Your task to perform on an android device: delete browsing data in the chrome app Image 0: 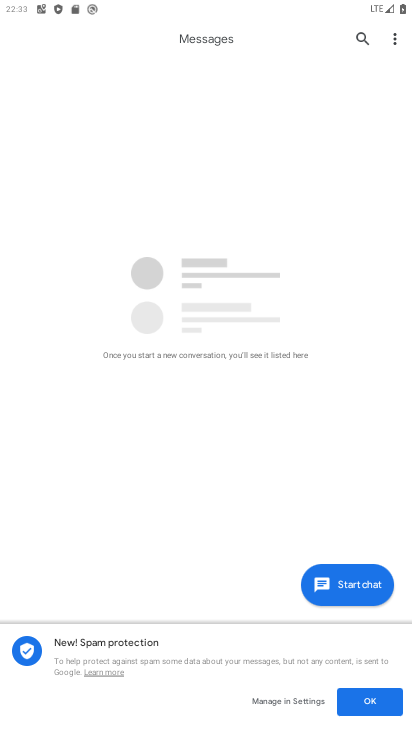
Step 0: press home button
Your task to perform on an android device: delete browsing data in the chrome app Image 1: 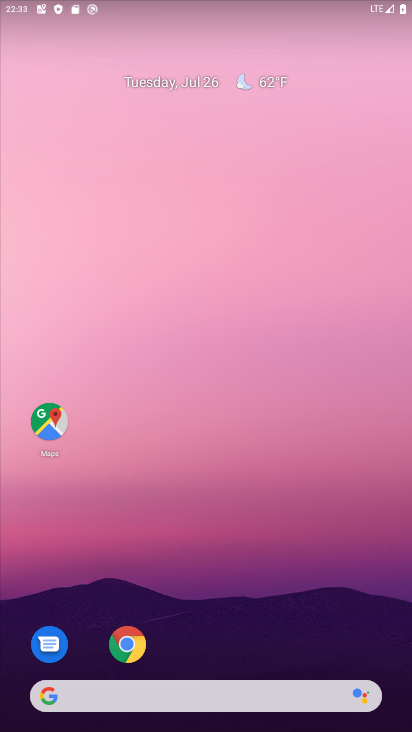
Step 1: click (132, 648)
Your task to perform on an android device: delete browsing data in the chrome app Image 2: 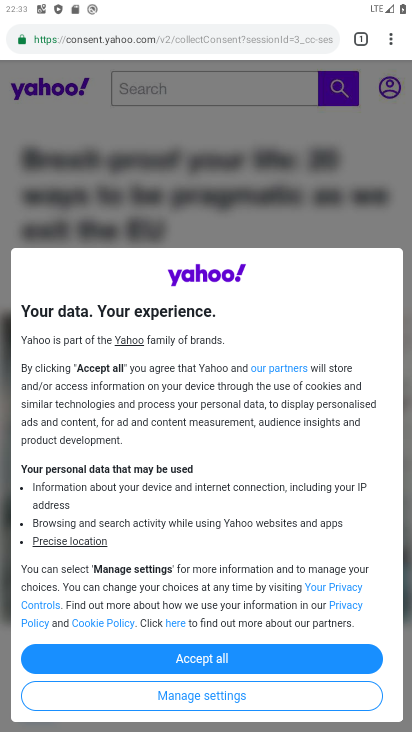
Step 2: drag from (392, 47) to (273, 474)
Your task to perform on an android device: delete browsing data in the chrome app Image 3: 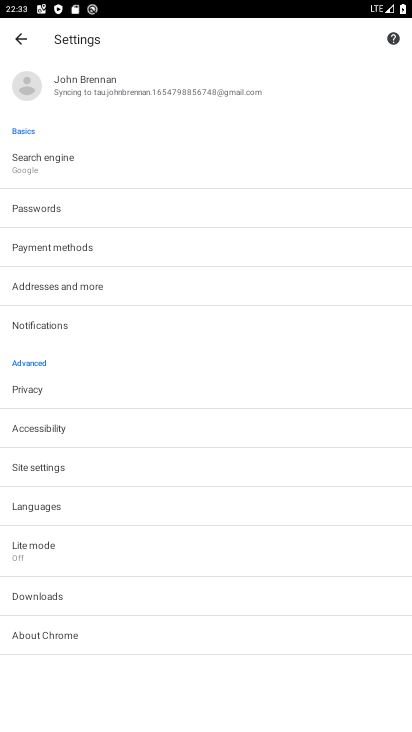
Step 3: click (36, 390)
Your task to perform on an android device: delete browsing data in the chrome app Image 4: 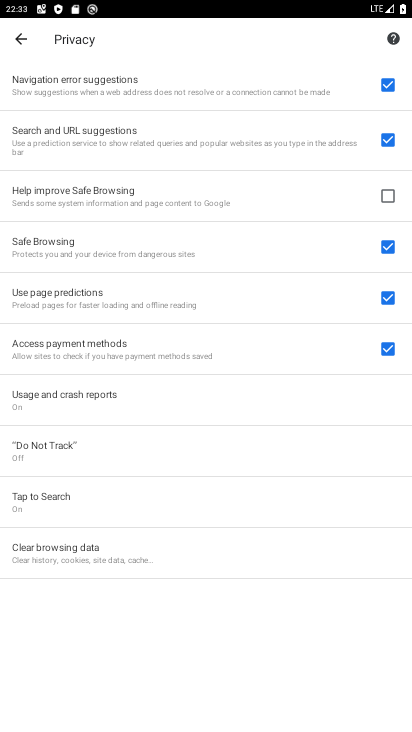
Step 4: click (60, 551)
Your task to perform on an android device: delete browsing data in the chrome app Image 5: 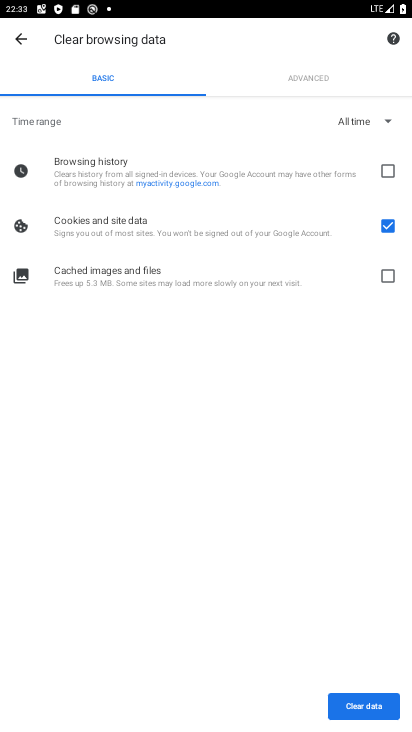
Step 5: click (383, 163)
Your task to perform on an android device: delete browsing data in the chrome app Image 6: 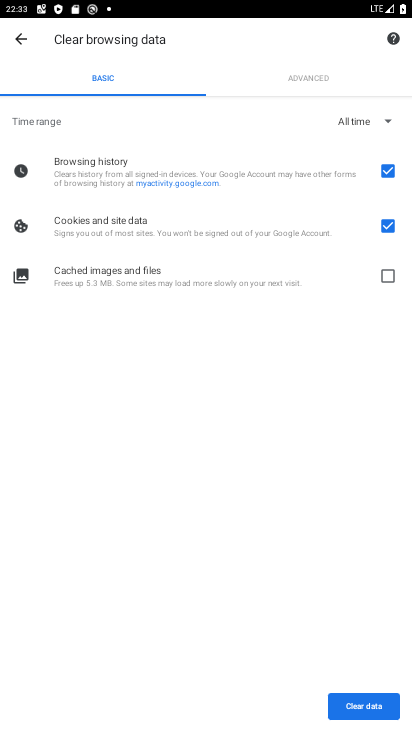
Step 6: click (391, 228)
Your task to perform on an android device: delete browsing data in the chrome app Image 7: 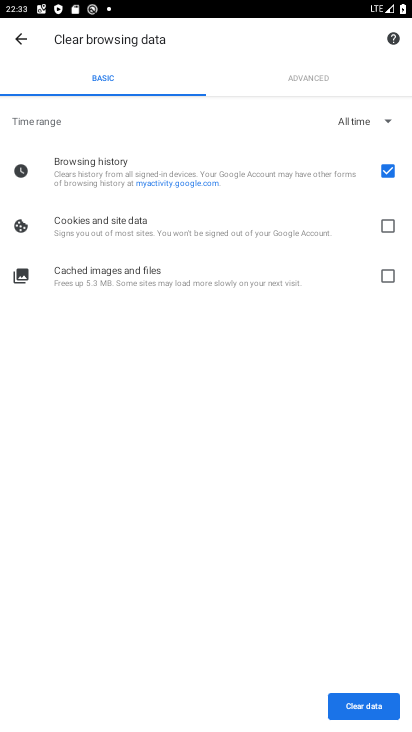
Step 7: click (369, 707)
Your task to perform on an android device: delete browsing data in the chrome app Image 8: 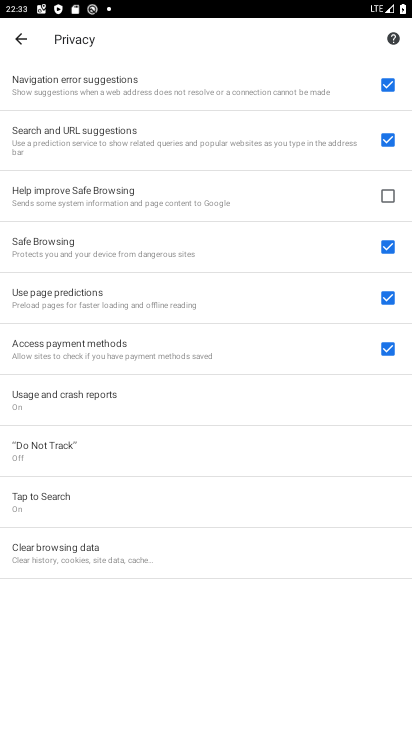
Step 8: task complete